Your task to perform on an android device: Open my contact list Image 0: 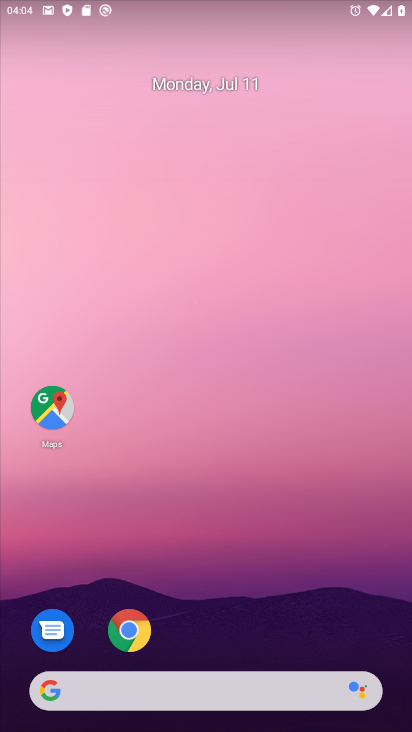
Step 0: press home button
Your task to perform on an android device: Open my contact list Image 1: 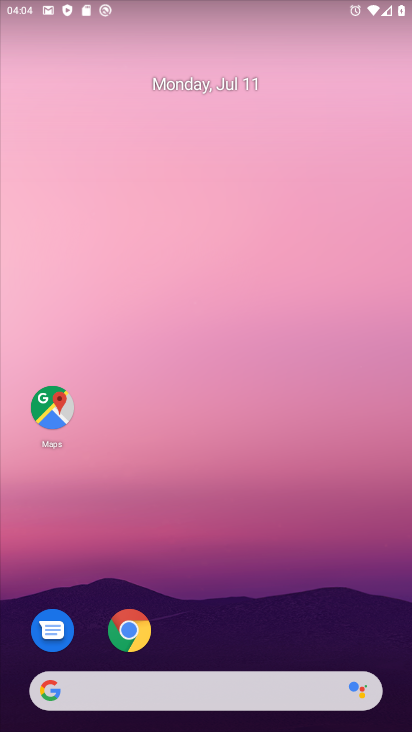
Step 1: drag from (201, 649) to (259, 24)
Your task to perform on an android device: Open my contact list Image 2: 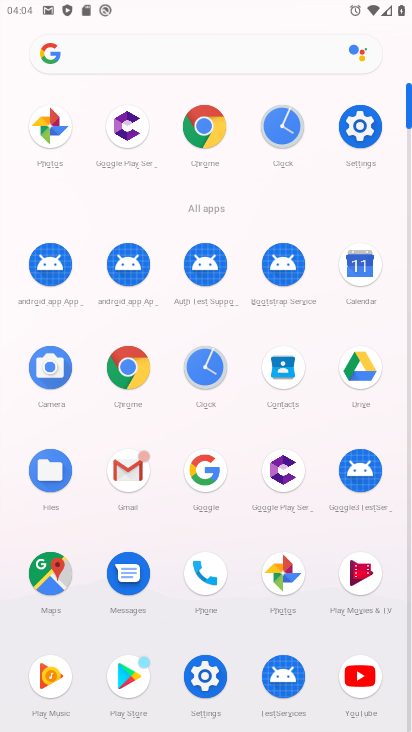
Step 2: click (281, 359)
Your task to perform on an android device: Open my contact list Image 3: 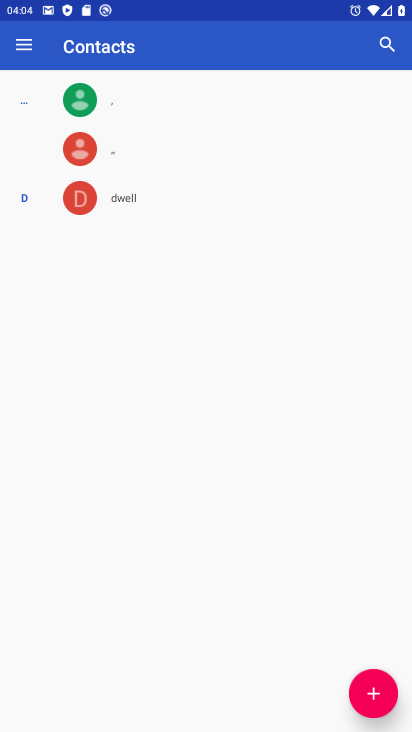
Step 3: task complete